Your task to perform on an android device: Open Wikipedia Image 0: 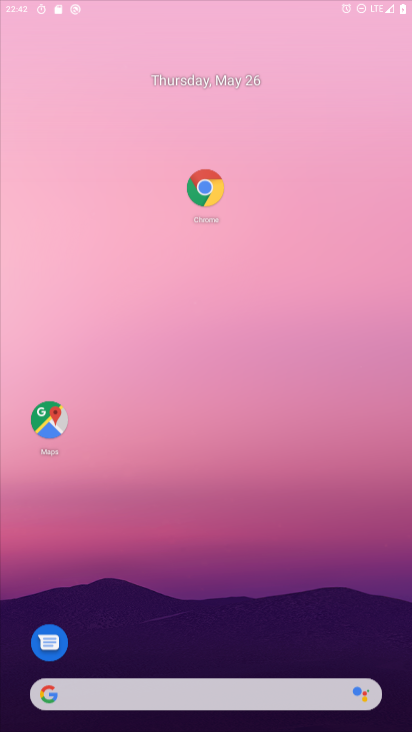
Step 0: drag from (199, 657) to (354, 130)
Your task to perform on an android device: Open Wikipedia Image 1: 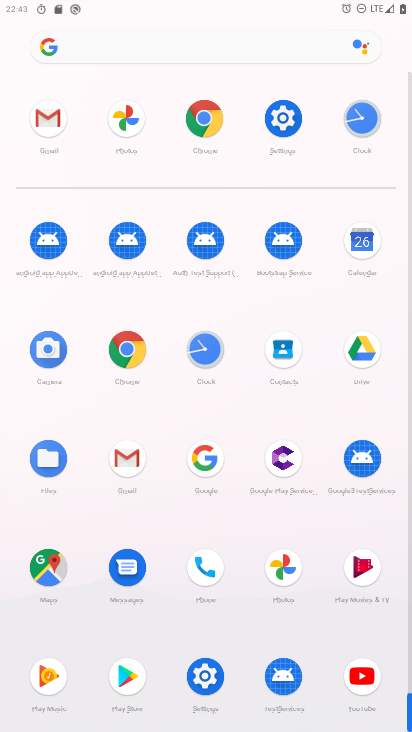
Step 1: click (153, 48)
Your task to perform on an android device: Open Wikipedia Image 2: 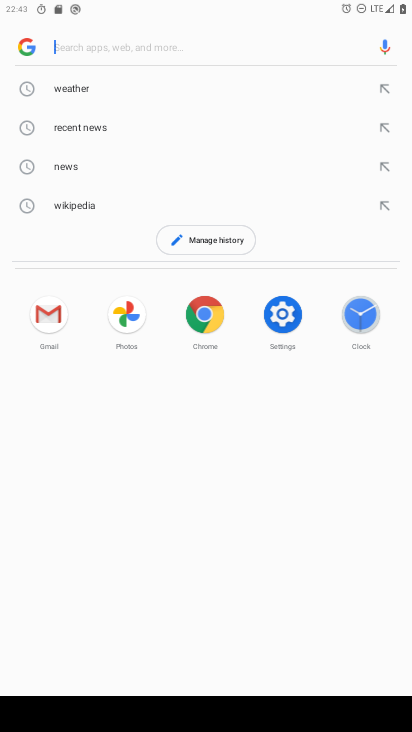
Step 2: click (82, 215)
Your task to perform on an android device: Open Wikipedia Image 3: 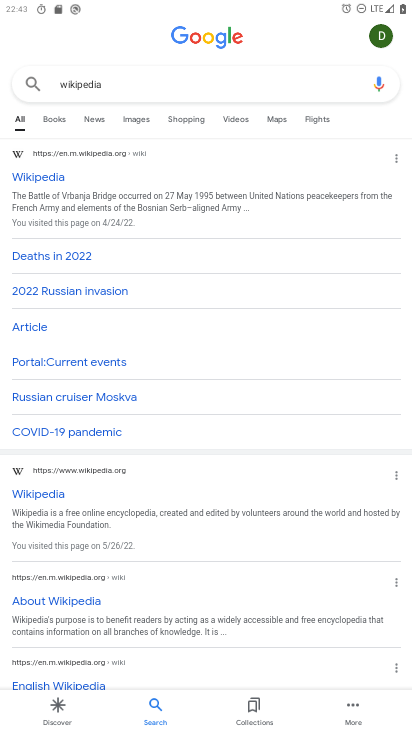
Step 3: click (46, 183)
Your task to perform on an android device: Open Wikipedia Image 4: 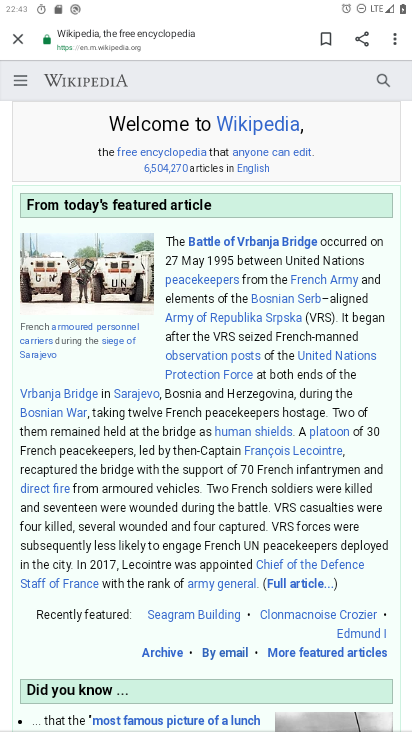
Step 4: task complete